Your task to perform on an android device: turn notification dots on Image 0: 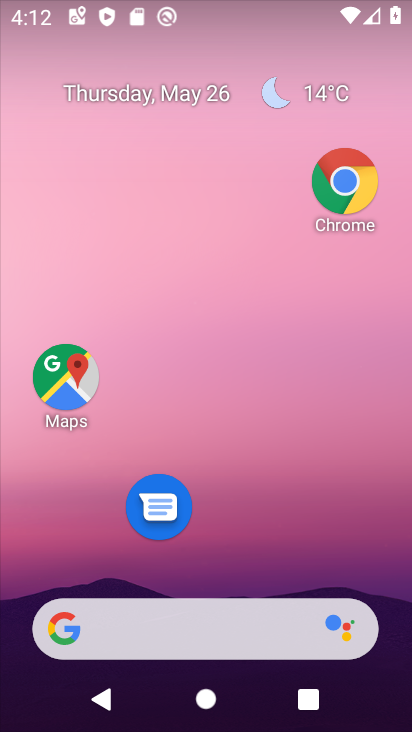
Step 0: drag from (297, 546) to (277, 49)
Your task to perform on an android device: turn notification dots on Image 1: 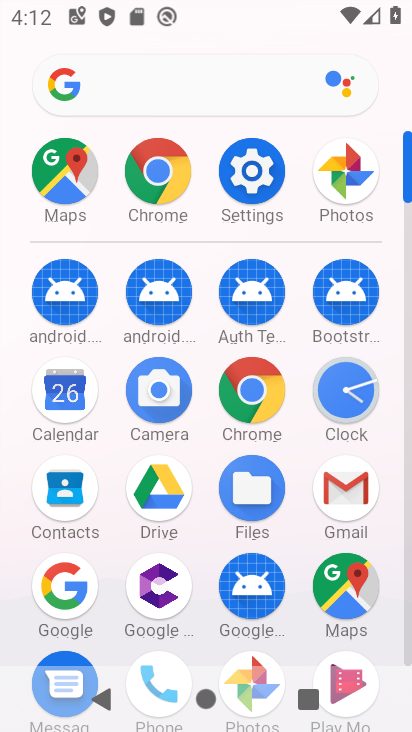
Step 1: click (257, 162)
Your task to perform on an android device: turn notification dots on Image 2: 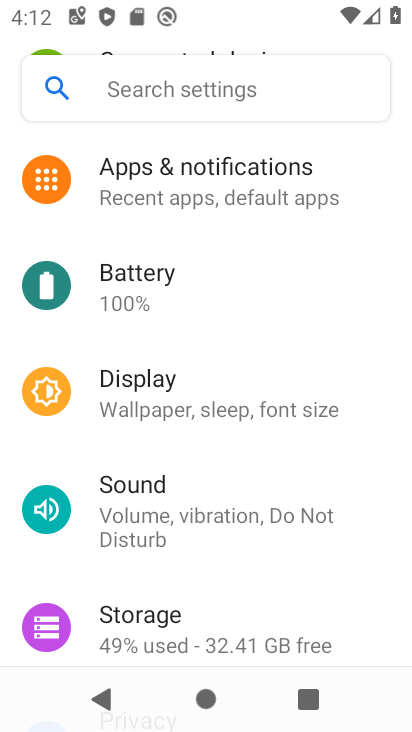
Step 2: click (225, 176)
Your task to perform on an android device: turn notification dots on Image 3: 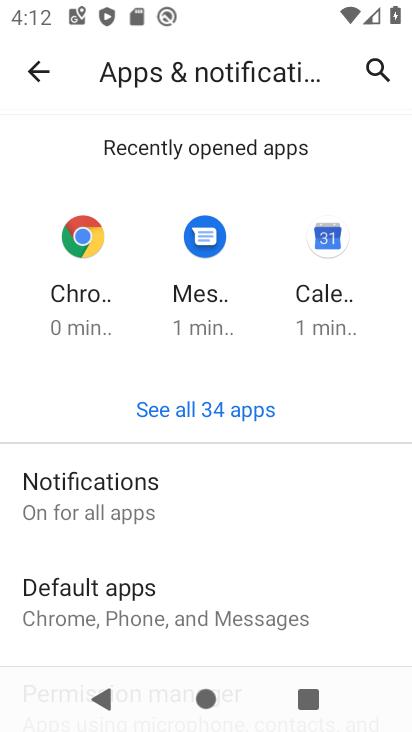
Step 3: click (145, 507)
Your task to perform on an android device: turn notification dots on Image 4: 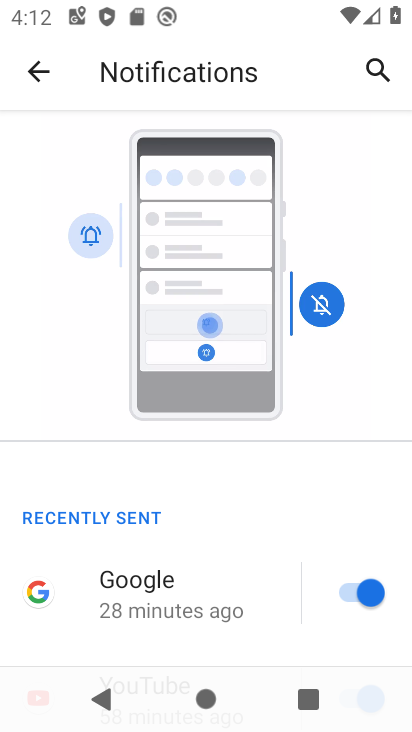
Step 4: drag from (250, 551) to (266, 100)
Your task to perform on an android device: turn notification dots on Image 5: 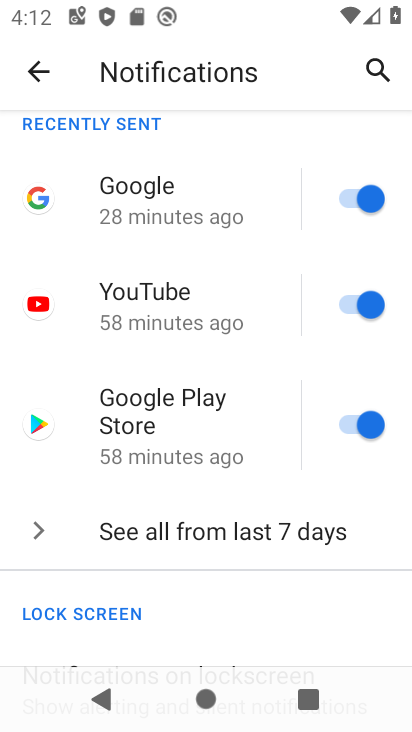
Step 5: drag from (245, 621) to (287, 150)
Your task to perform on an android device: turn notification dots on Image 6: 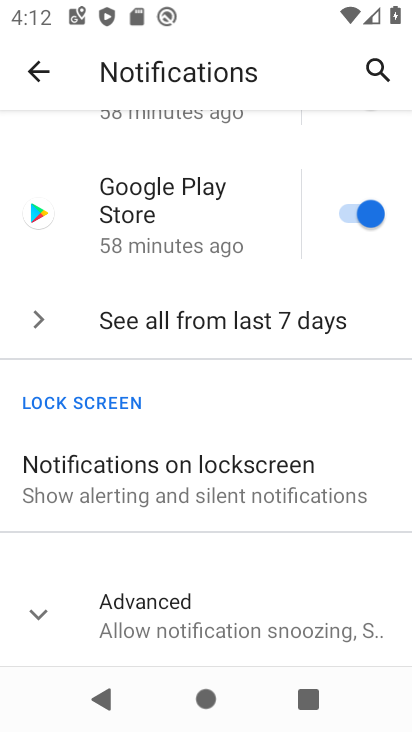
Step 6: click (143, 628)
Your task to perform on an android device: turn notification dots on Image 7: 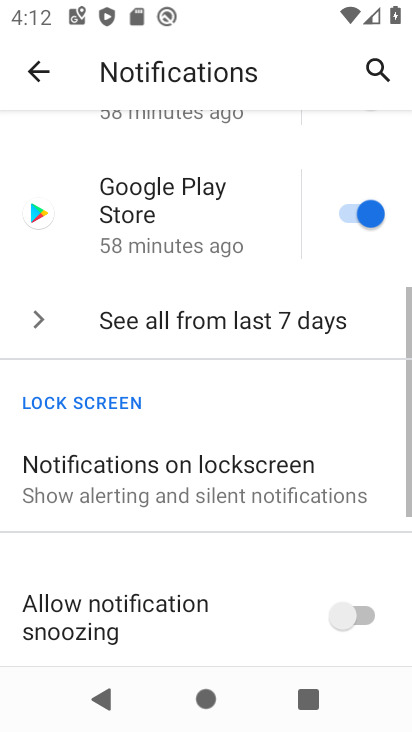
Step 7: task complete